Your task to perform on an android device: Check the weather Image 0: 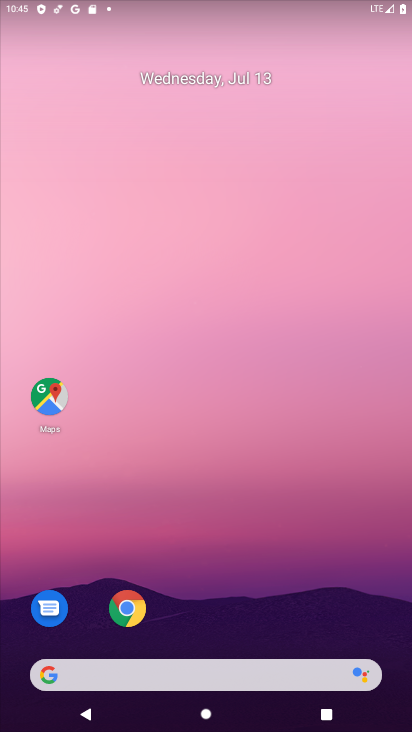
Step 0: click (187, 664)
Your task to perform on an android device: Check the weather Image 1: 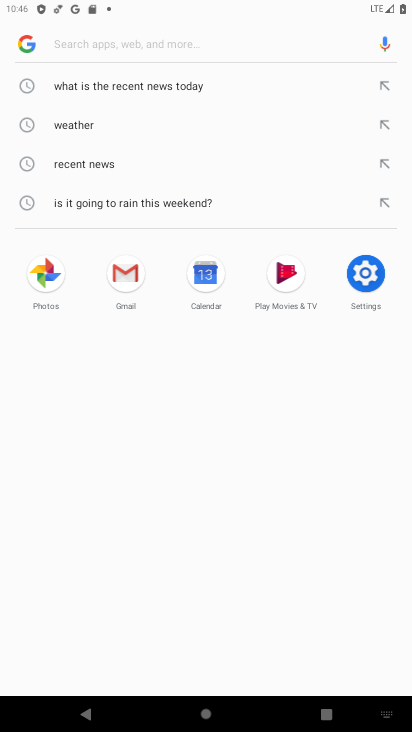
Step 1: type "weather"
Your task to perform on an android device: Check the weather Image 2: 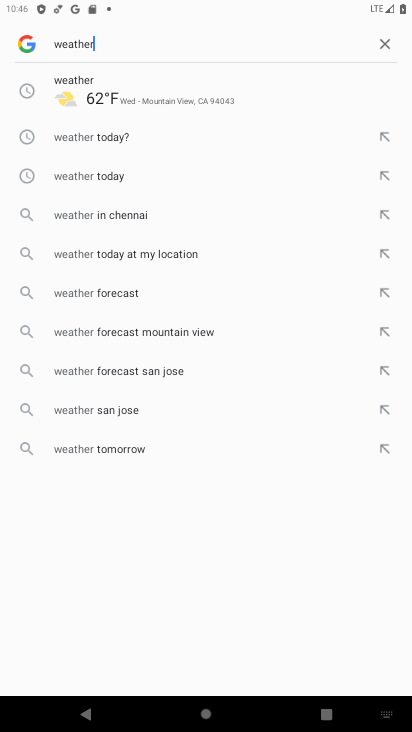
Step 2: click (173, 73)
Your task to perform on an android device: Check the weather Image 3: 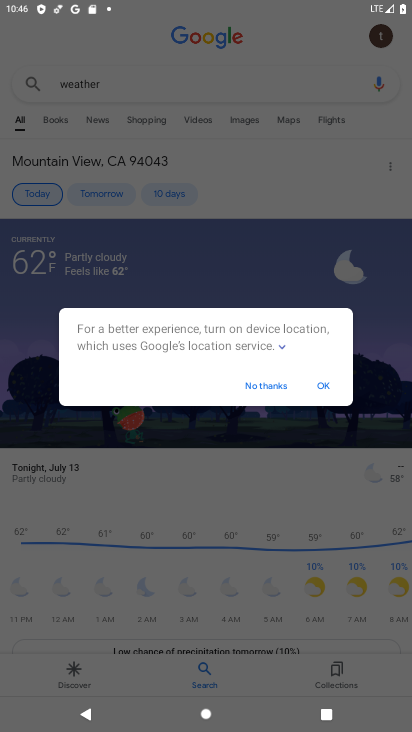
Step 3: click (274, 387)
Your task to perform on an android device: Check the weather Image 4: 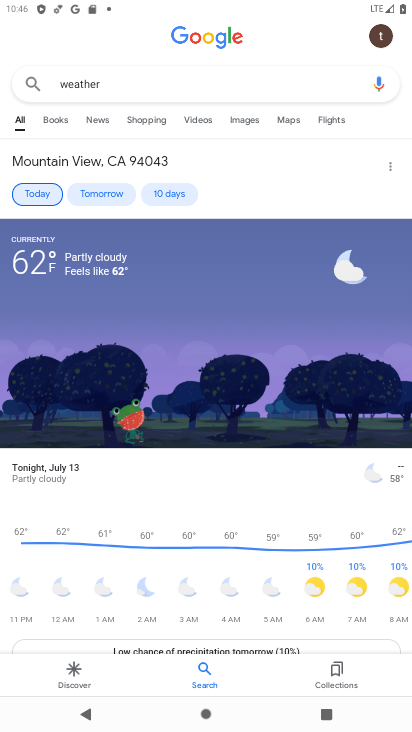
Step 4: task complete